Your task to perform on an android device: Turn on the flashlight Image 0: 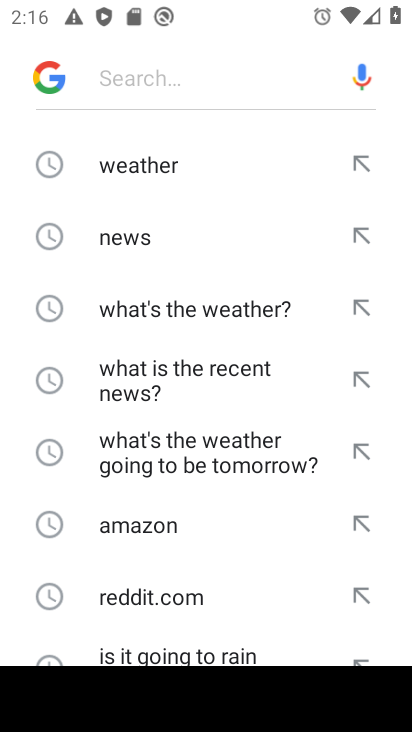
Step 0: press home button
Your task to perform on an android device: Turn on the flashlight Image 1: 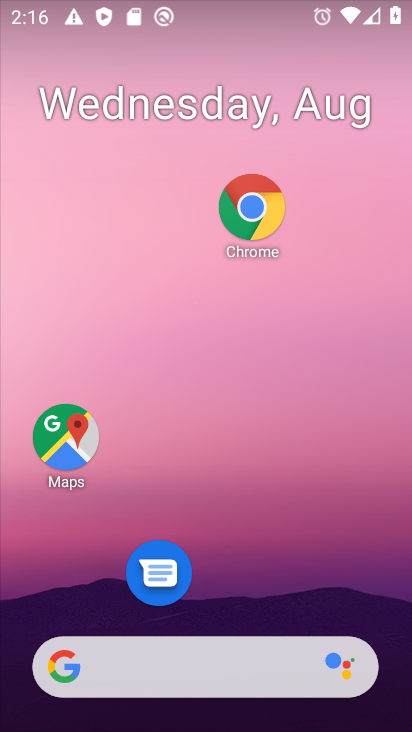
Step 1: task complete